Your task to perform on an android device: Go to Amazon Image 0: 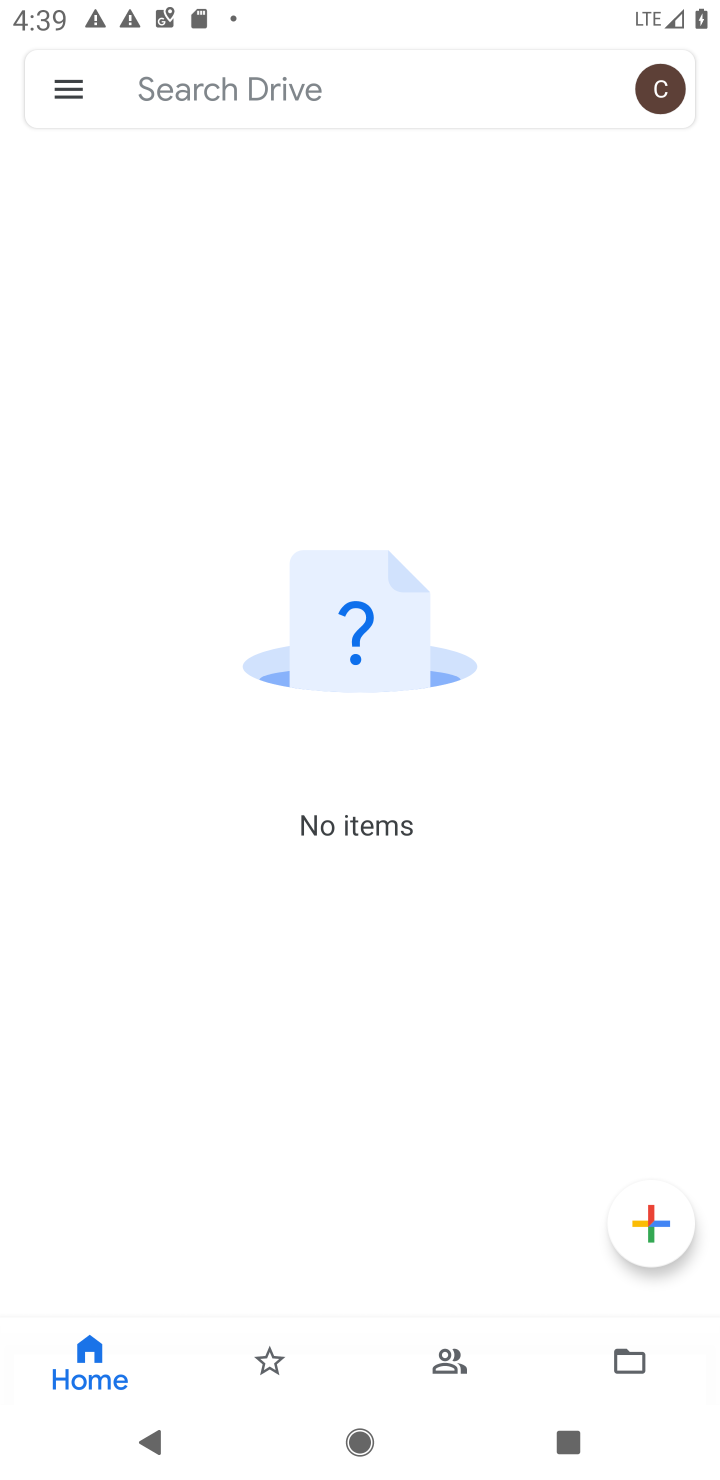
Step 0: press home button
Your task to perform on an android device: Go to Amazon Image 1: 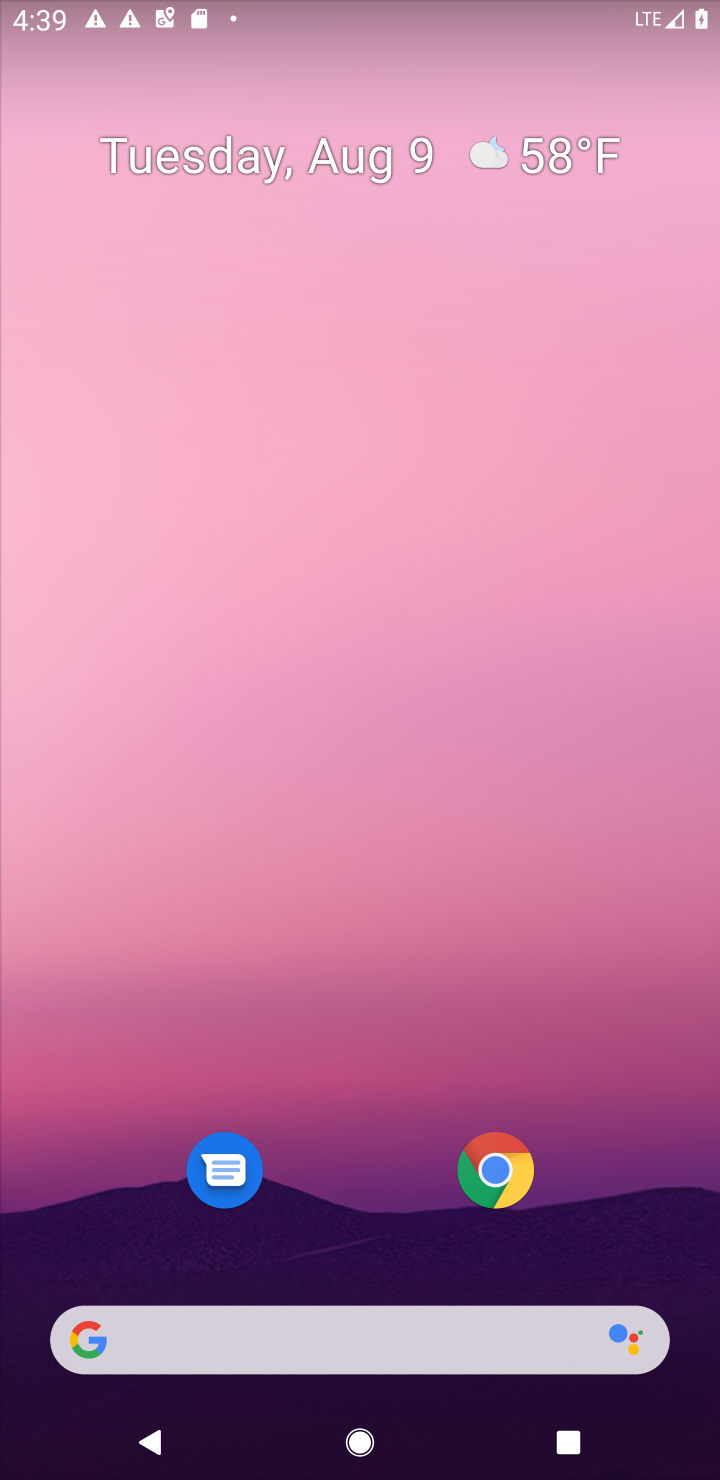
Step 1: press home button
Your task to perform on an android device: Go to Amazon Image 2: 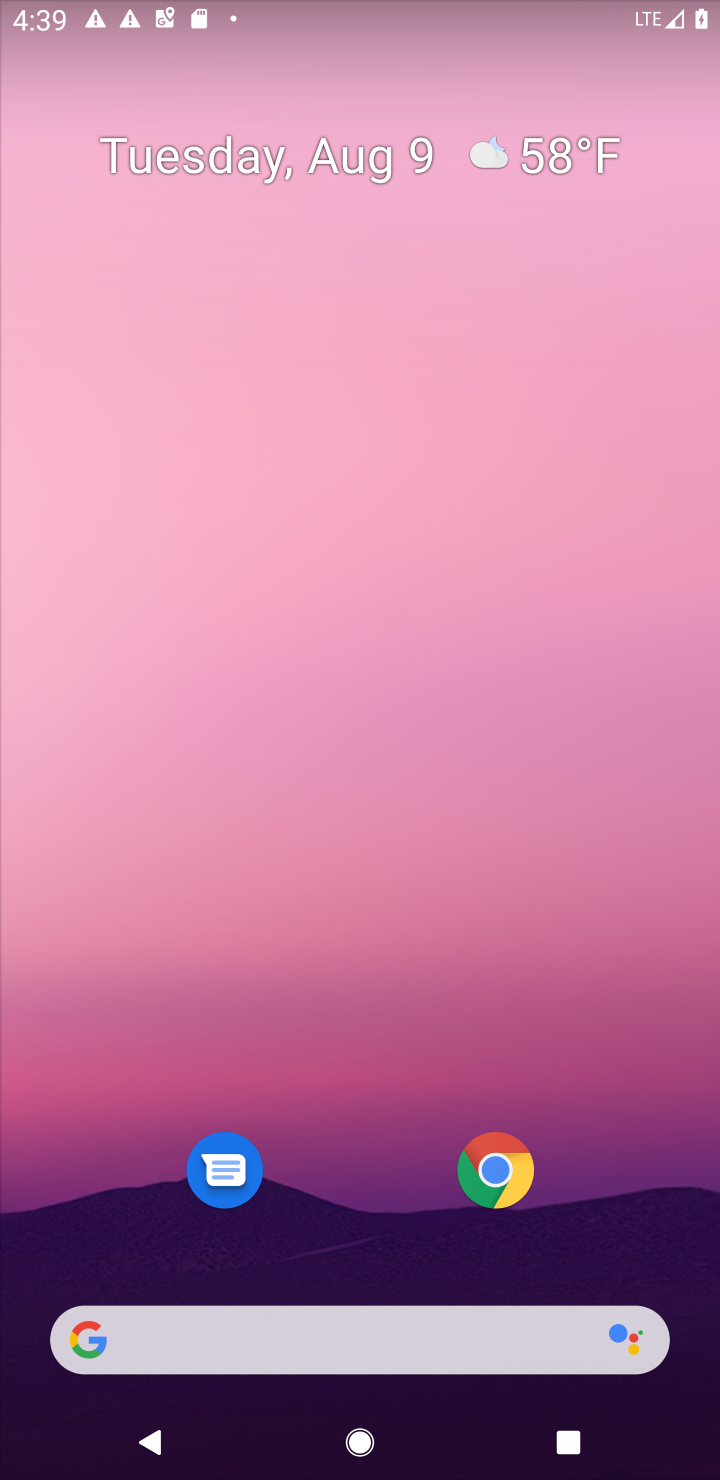
Step 2: click (77, 1324)
Your task to perform on an android device: Go to Amazon Image 3: 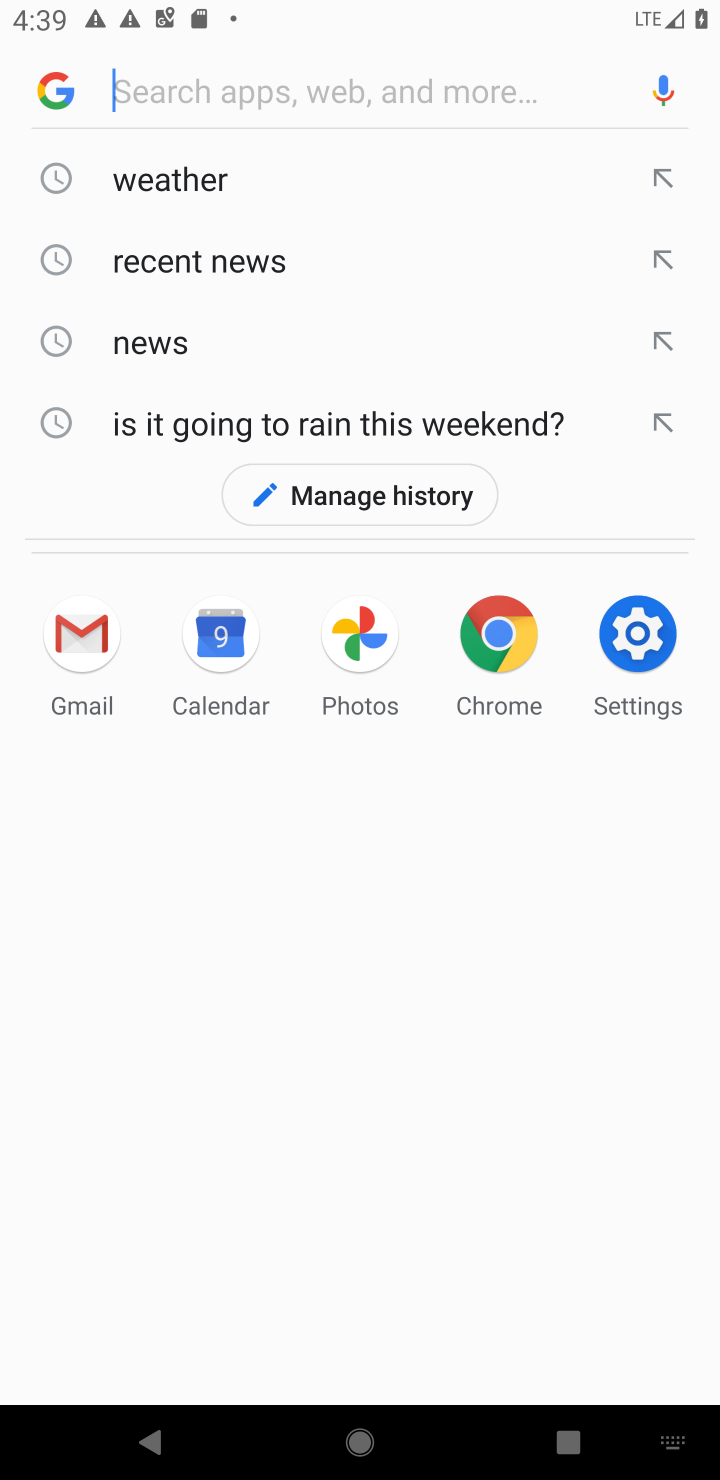
Step 3: type "Amazon"
Your task to perform on an android device: Go to Amazon Image 4: 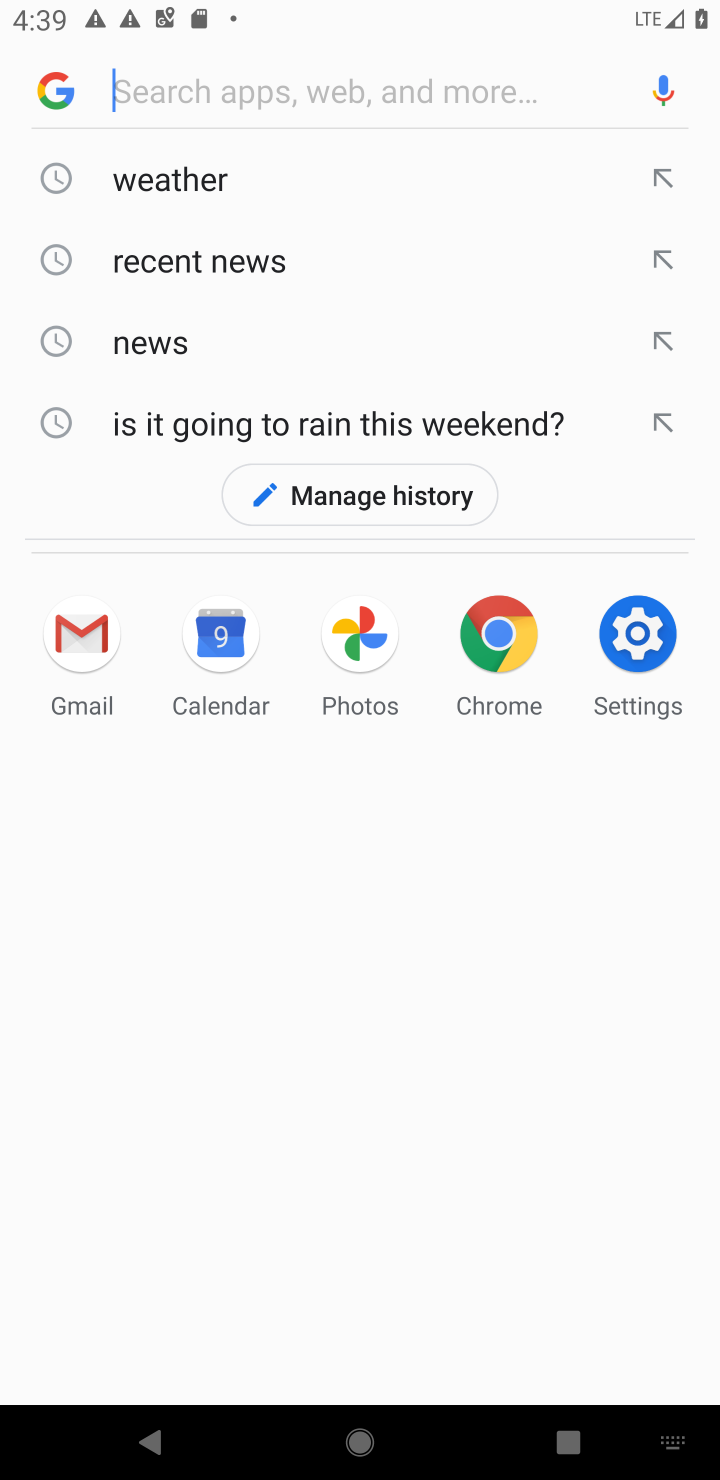
Step 4: click (157, 84)
Your task to perform on an android device: Go to Amazon Image 5: 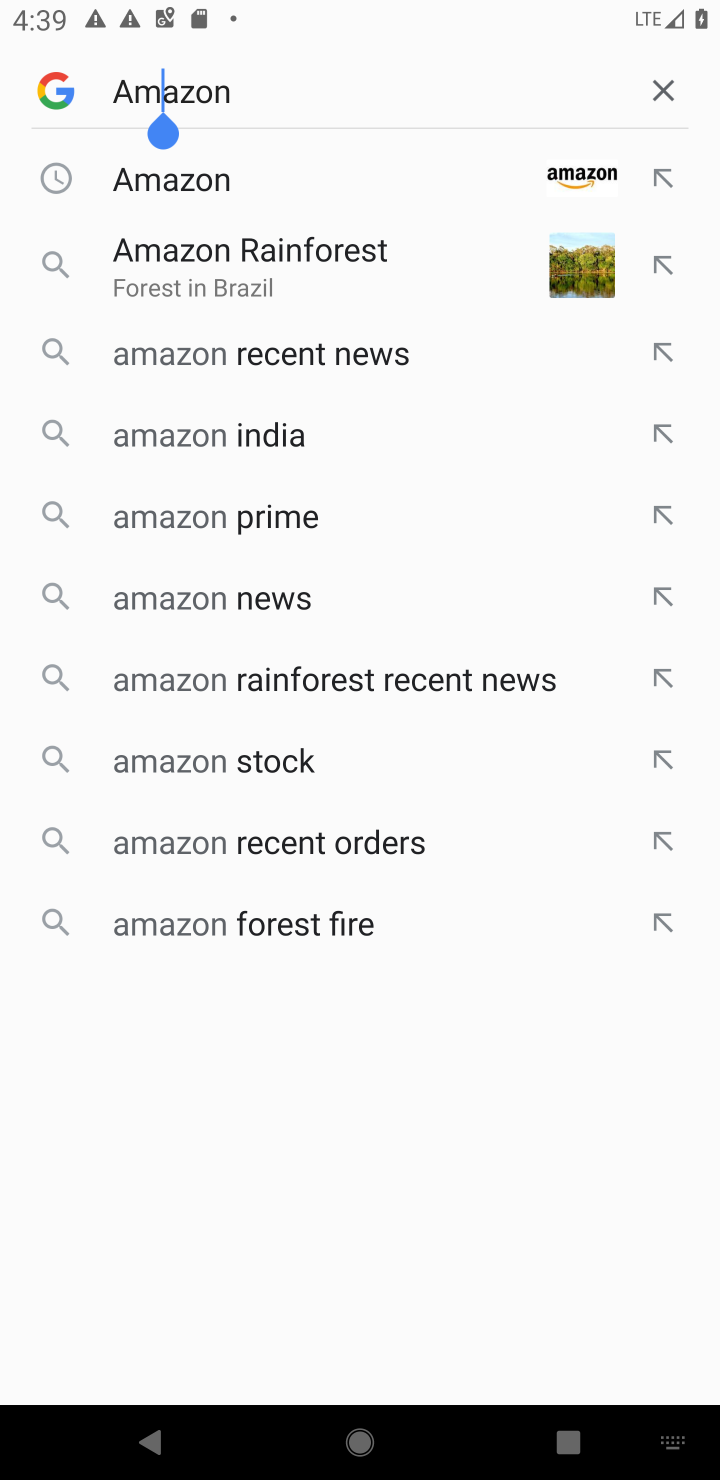
Step 5: click (591, 166)
Your task to perform on an android device: Go to Amazon Image 6: 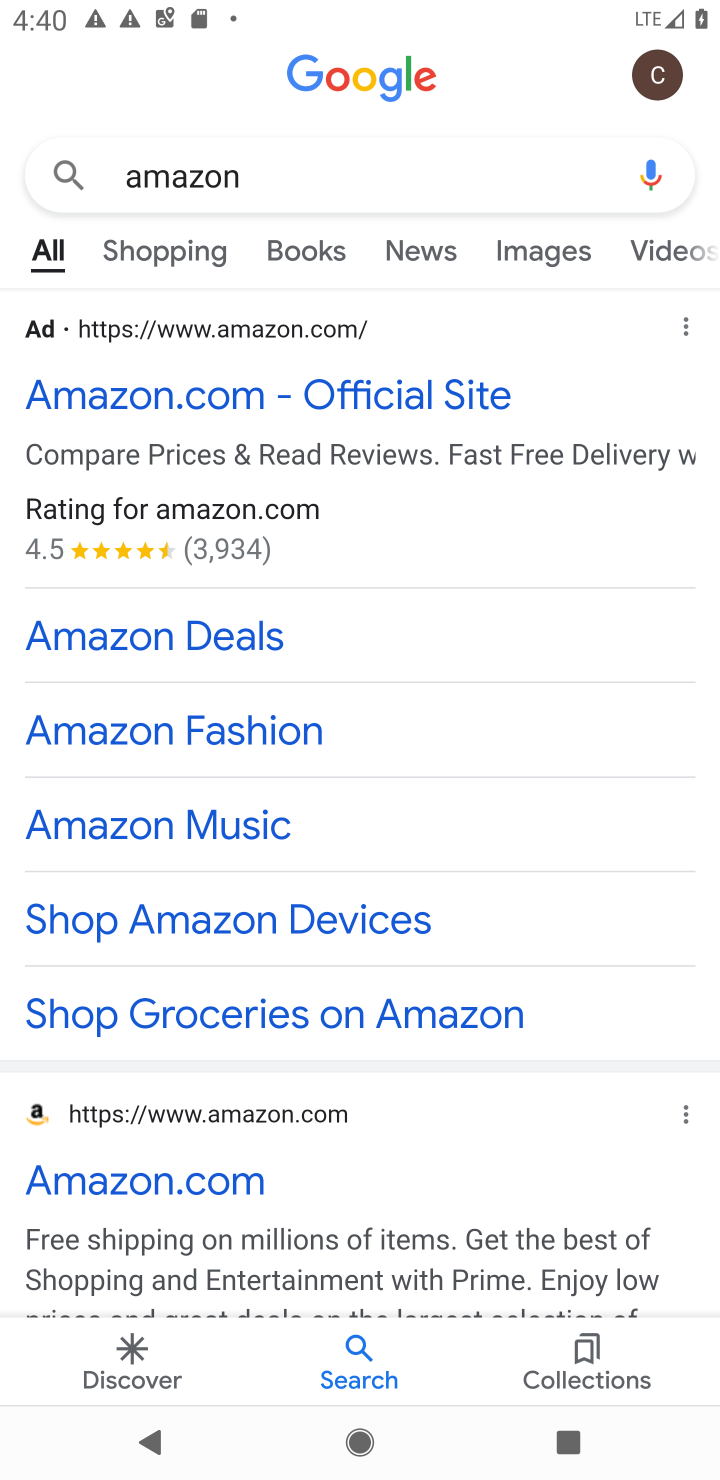
Step 6: click (67, 1183)
Your task to perform on an android device: Go to Amazon Image 7: 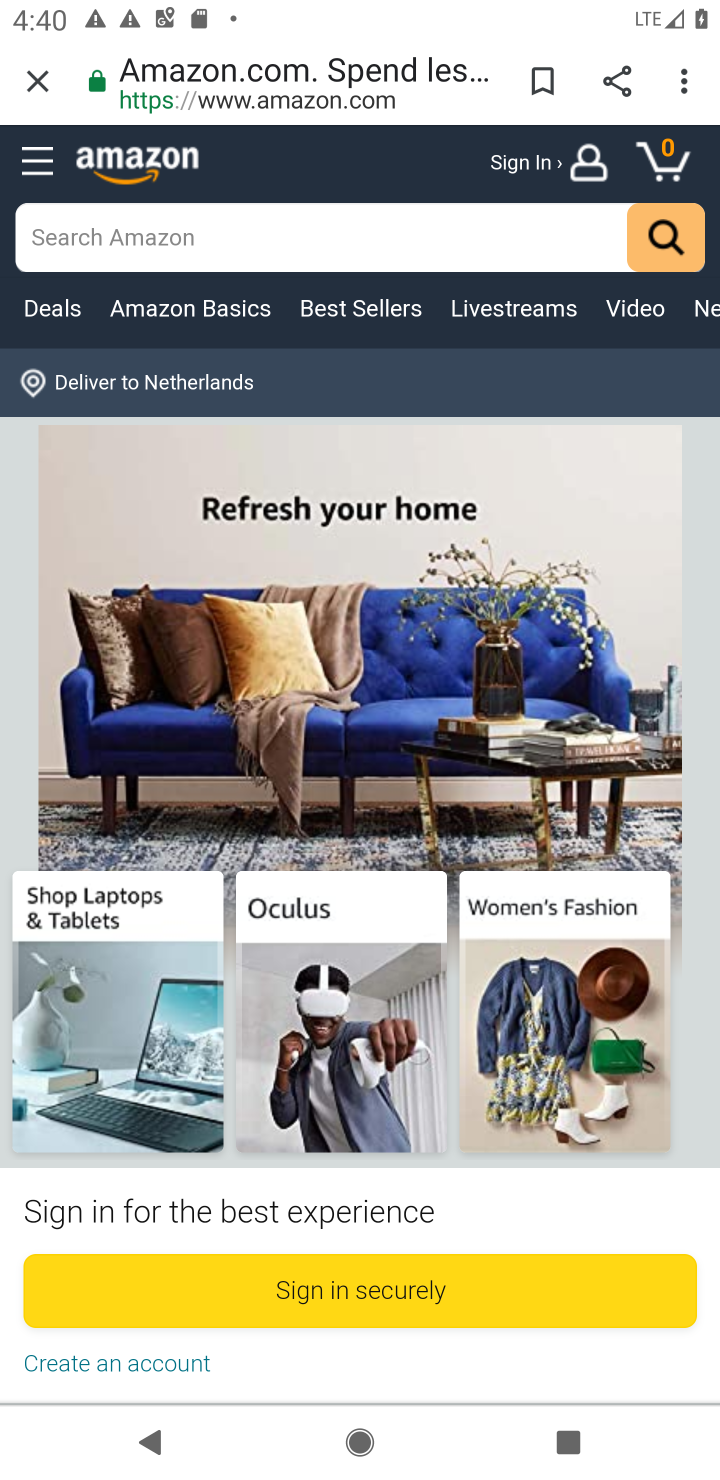
Step 7: task complete